Your task to perform on an android device: clear all cookies in the chrome app Image 0: 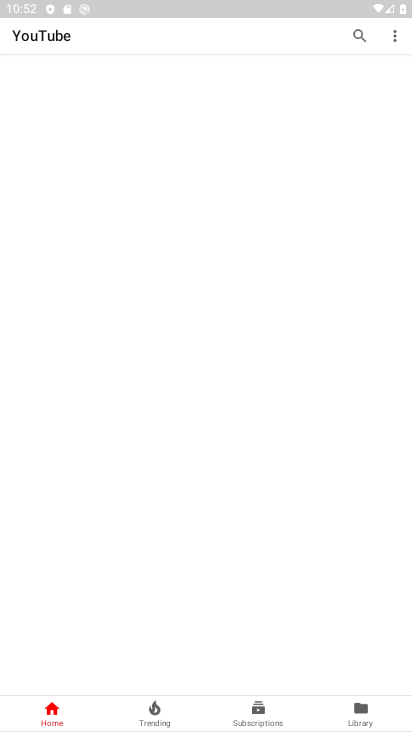
Step 0: drag from (136, 729) to (169, 143)
Your task to perform on an android device: clear all cookies in the chrome app Image 1: 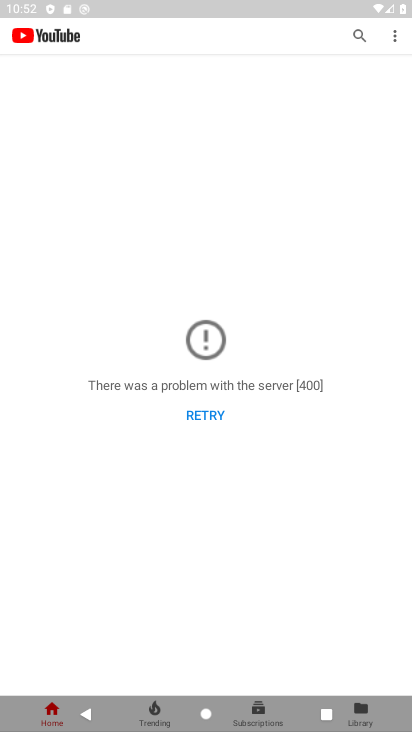
Step 1: press home button
Your task to perform on an android device: clear all cookies in the chrome app Image 2: 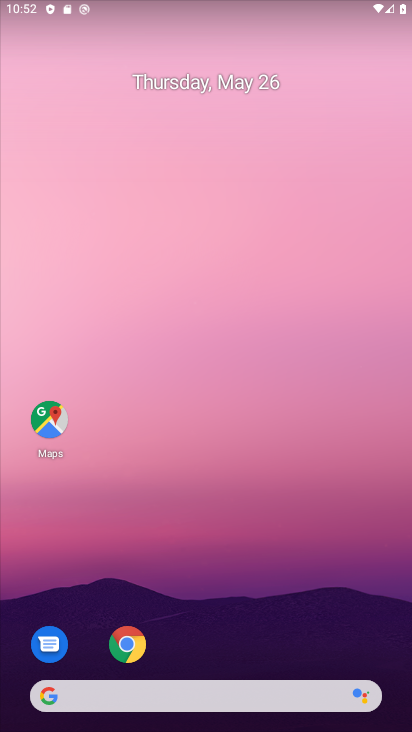
Step 2: click (130, 643)
Your task to perform on an android device: clear all cookies in the chrome app Image 3: 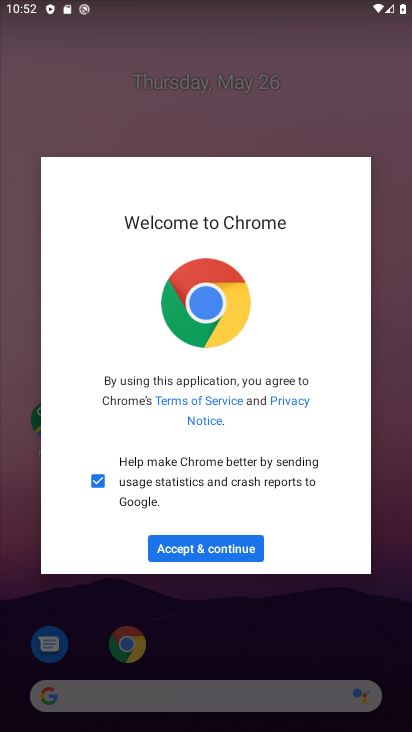
Step 3: click (233, 558)
Your task to perform on an android device: clear all cookies in the chrome app Image 4: 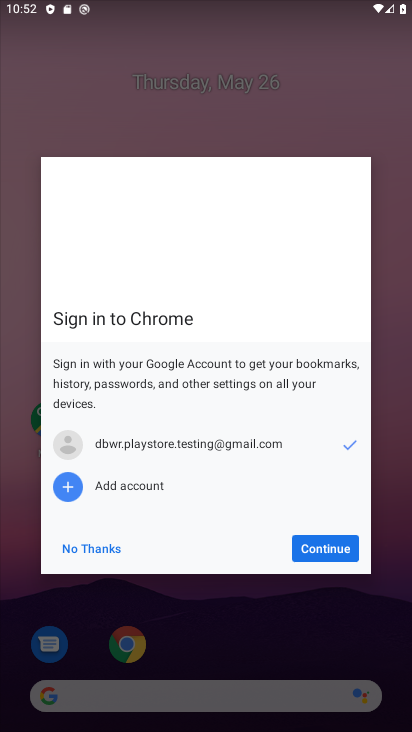
Step 4: click (335, 558)
Your task to perform on an android device: clear all cookies in the chrome app Image 5: 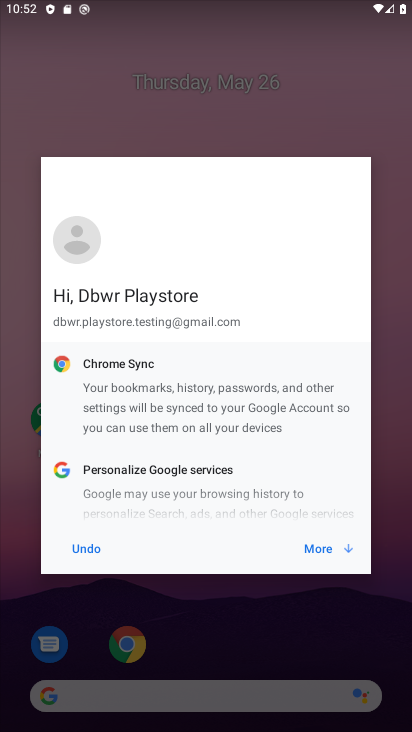
Step 5: click (335, 557)
Your task to perform on an android device: clear all cookies in the chrome app Image 6: 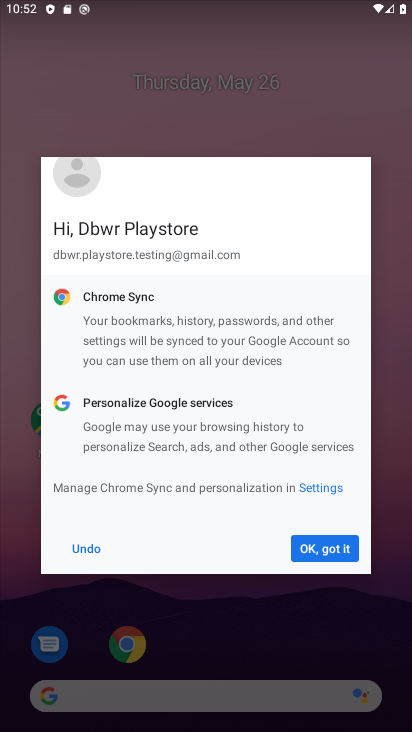
Step 6: click (314, 556)
Your task to perform on an android device: clear all cookies in the chrome app Image 7: 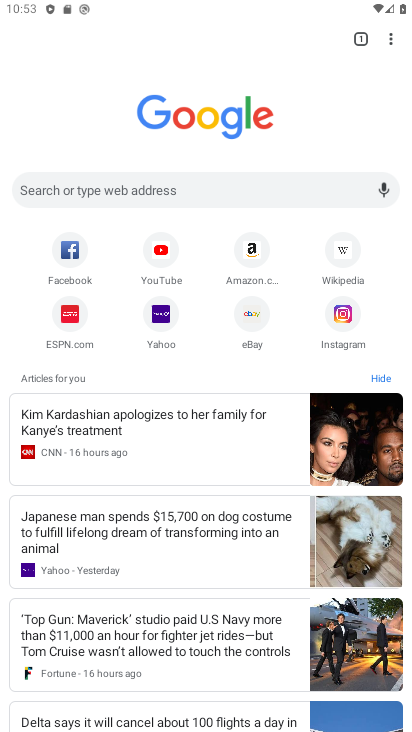
Step 7: click (394, 43)
Your task to perform on an android device: clear all cookies in the chrome app Image 8: 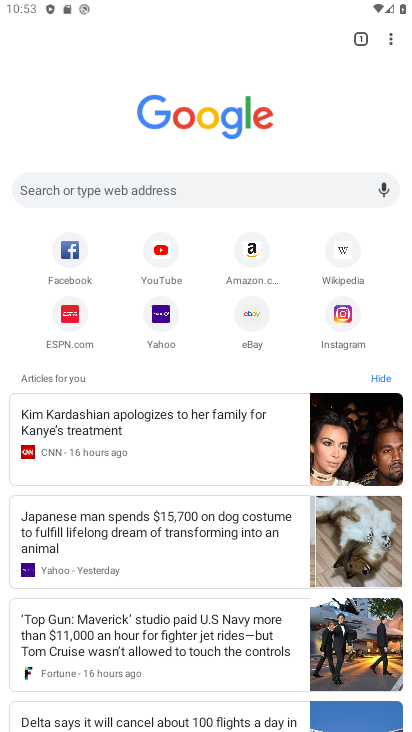
Step 8: click (392, 44)
Your task to perform on an android device: clear all cookies in the chrome app Image 9: 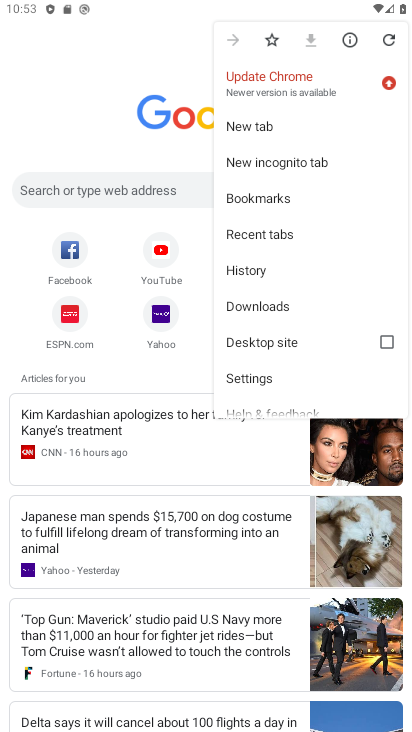
Step 9: click (266, 383)
Your task to perform on an android device: clear all cookies in the chrome app Image 10: 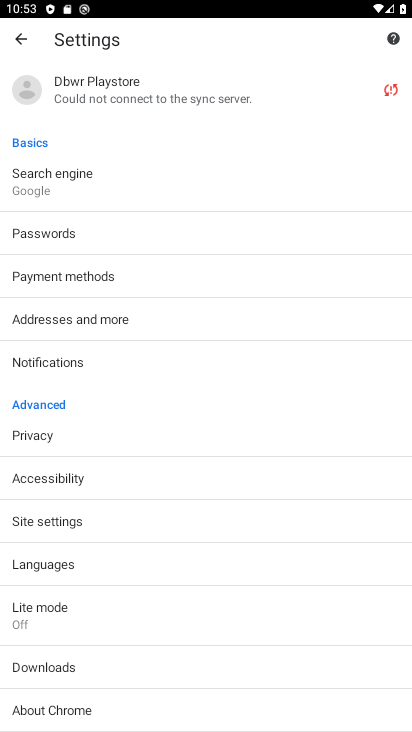
Step 10: click (59, 442)
Your task to perform on an android device: clear all cookies in the chrome app Image 11: 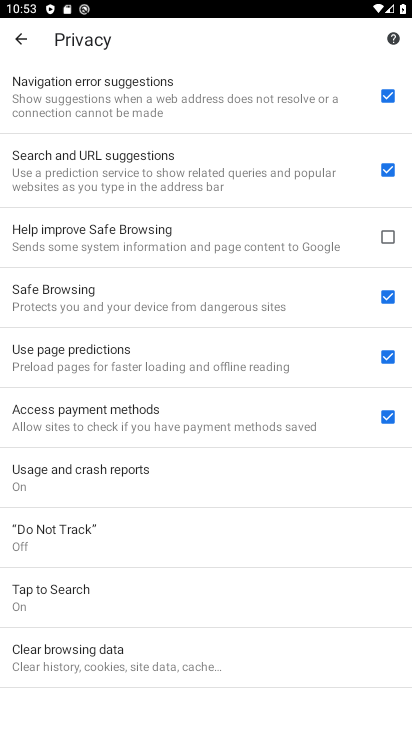
Step 11: click (164, 669)
Your task to perform on an android device: clear all cookies in the chrome app Image 12: 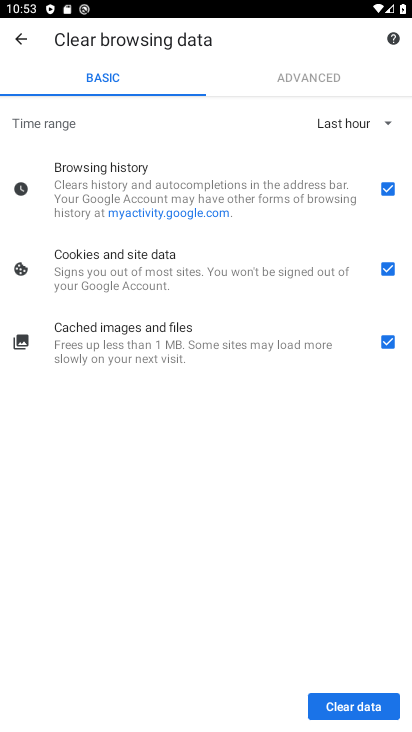
Step 12: click (383, 341)
Your task to perform on an android device: clear all cookies in the chrome app Image 13: 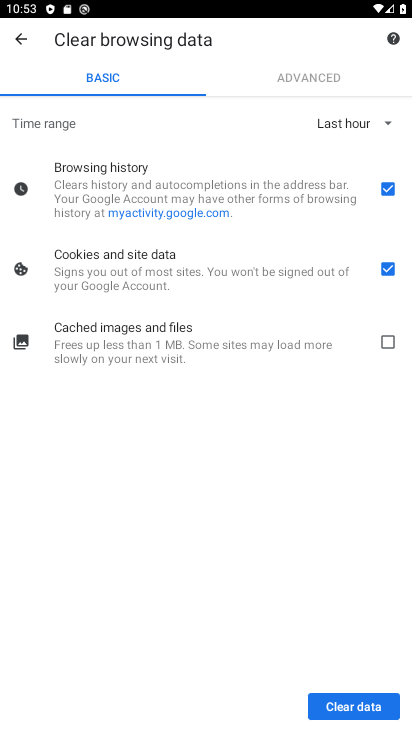
Step 13: click (382, 193)
Your task to perform on an android device: clear all cookies in the chrome app Image 14: 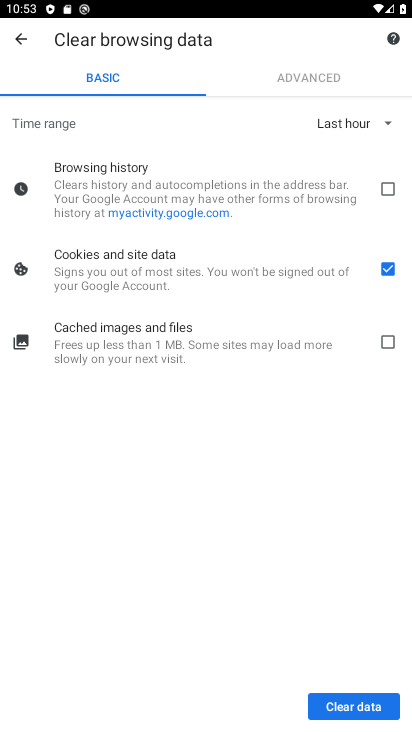
Step 14: click (367, 704)
Your task to perform on an android device: clear all cookies in the chrome app Image 15: 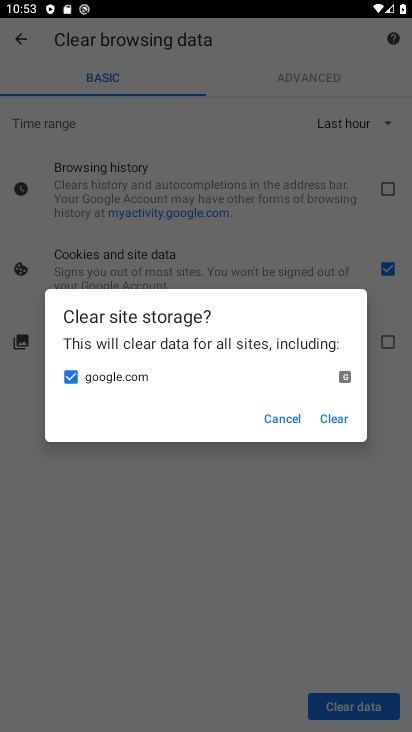
Step 15: click (342, 420)
Your task to perform on an android device: clear all cookies in the chrome app Image 16: 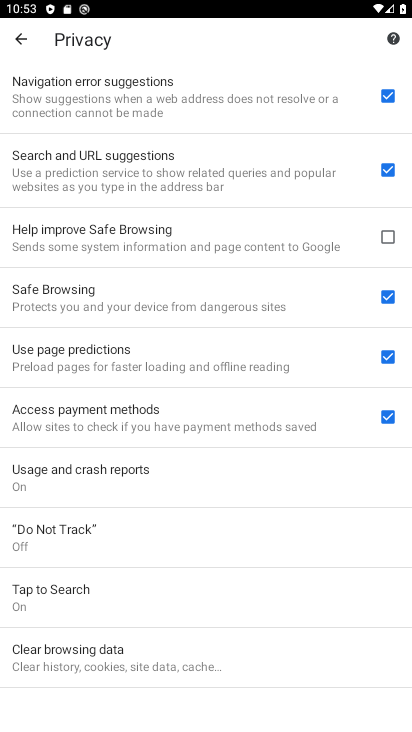
Step 16: task complete